Your task to perform on an android device: Search for seafood restaurants on Google Maps Image 0: 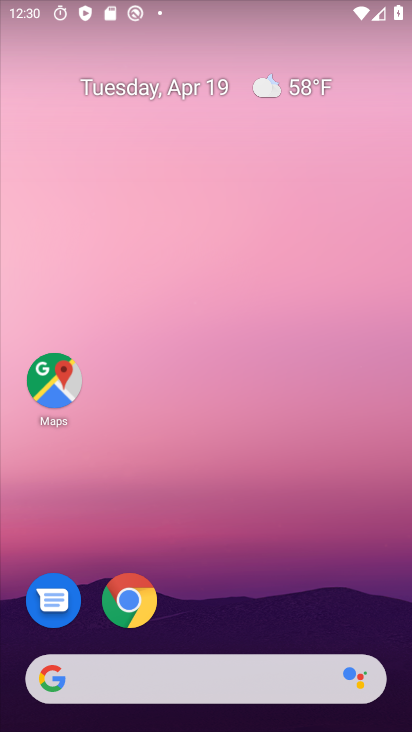
Step 0: click (175, 171)
Your task to perform on an android device: Search for seafood restaurants on Google Maps Image 1: 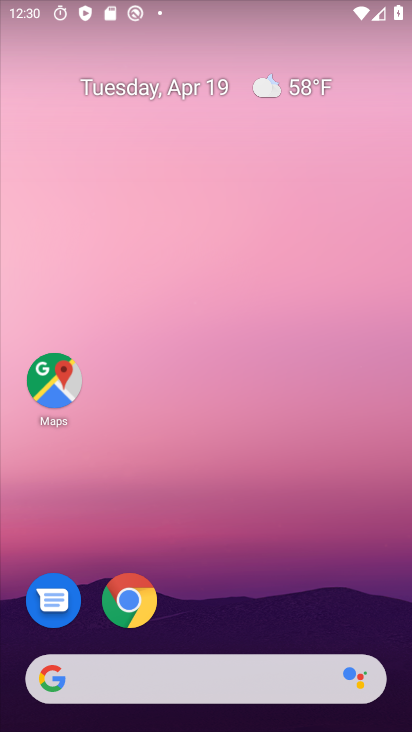
Step 1: drag from (241, 703) to (232, 212)
Your task to perform on an android device: Search for seafood restaurants on Google Maps Image 2: 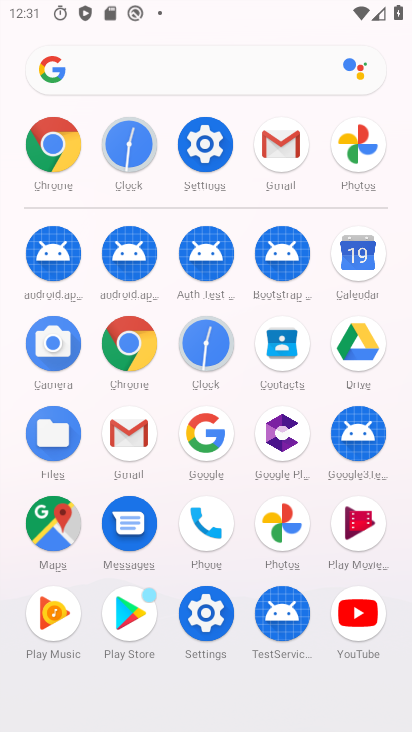
Step 2: click (43, 510)
Your task to perform on an android device: Search for seafood restaurants on Google Maps Image 3: 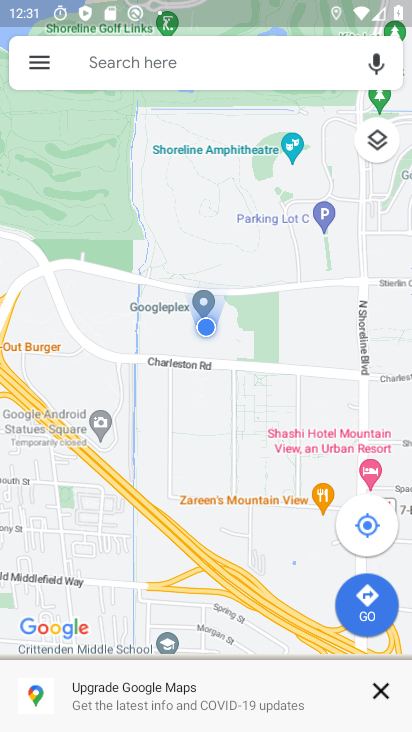
Step 3: click (187, 58)
Your task to perform on an android device: Search for seafood restaurants on Google Maps Image 4: 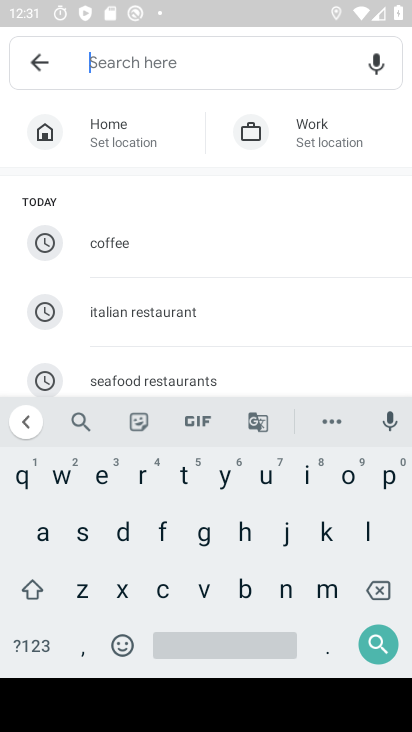
Step 4: click (149, 376)
Your task to perform on an android device: Search for seafood restaurants on Google Maps Image 5: 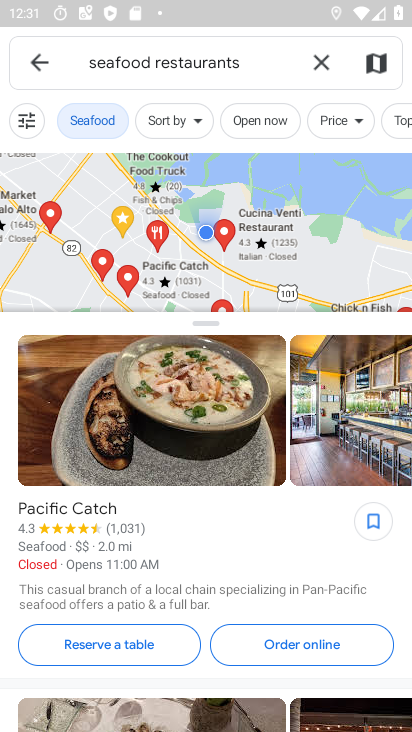
Step 5: task complete